Your task to perform on an android device: Open Android settings Image 0: 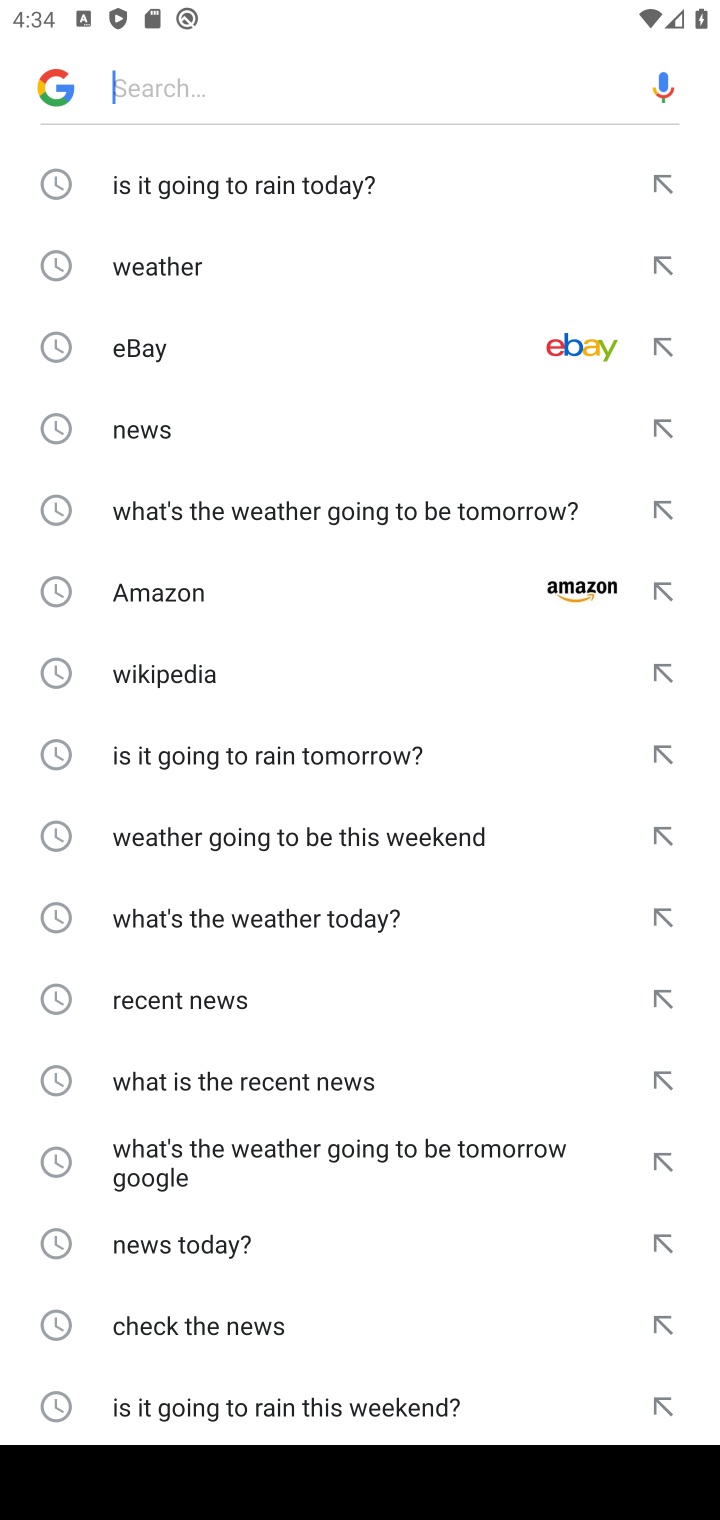
Step 0: press home button
Your task to perform on an android device: Open Android settings Image 1: 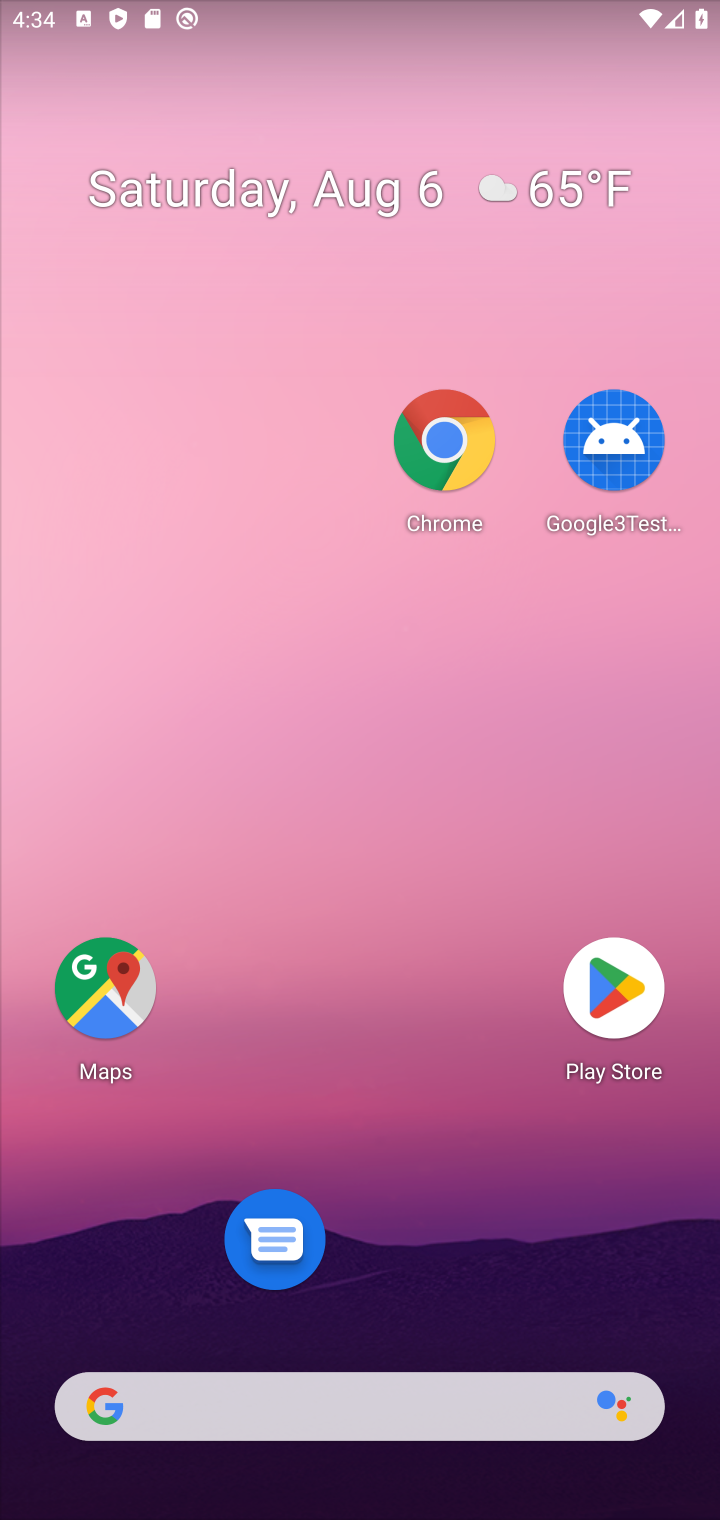
Step 1: drag from (415, 1176) to (394, 30)
Your task to perform on an android device: Open Android settings Image 2: 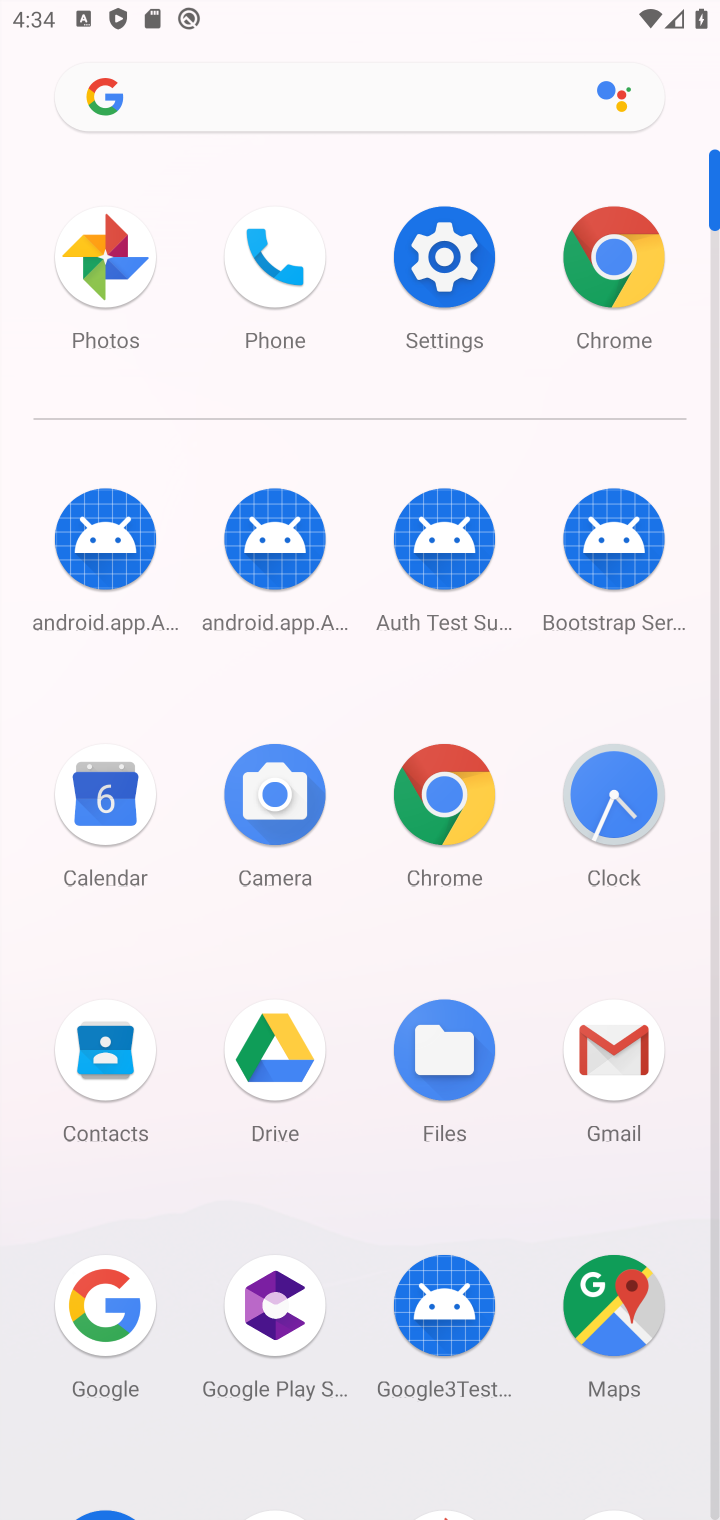
Step 2: click (446, 279)
Your task to perform on an android device: Open Android settings Image 3: 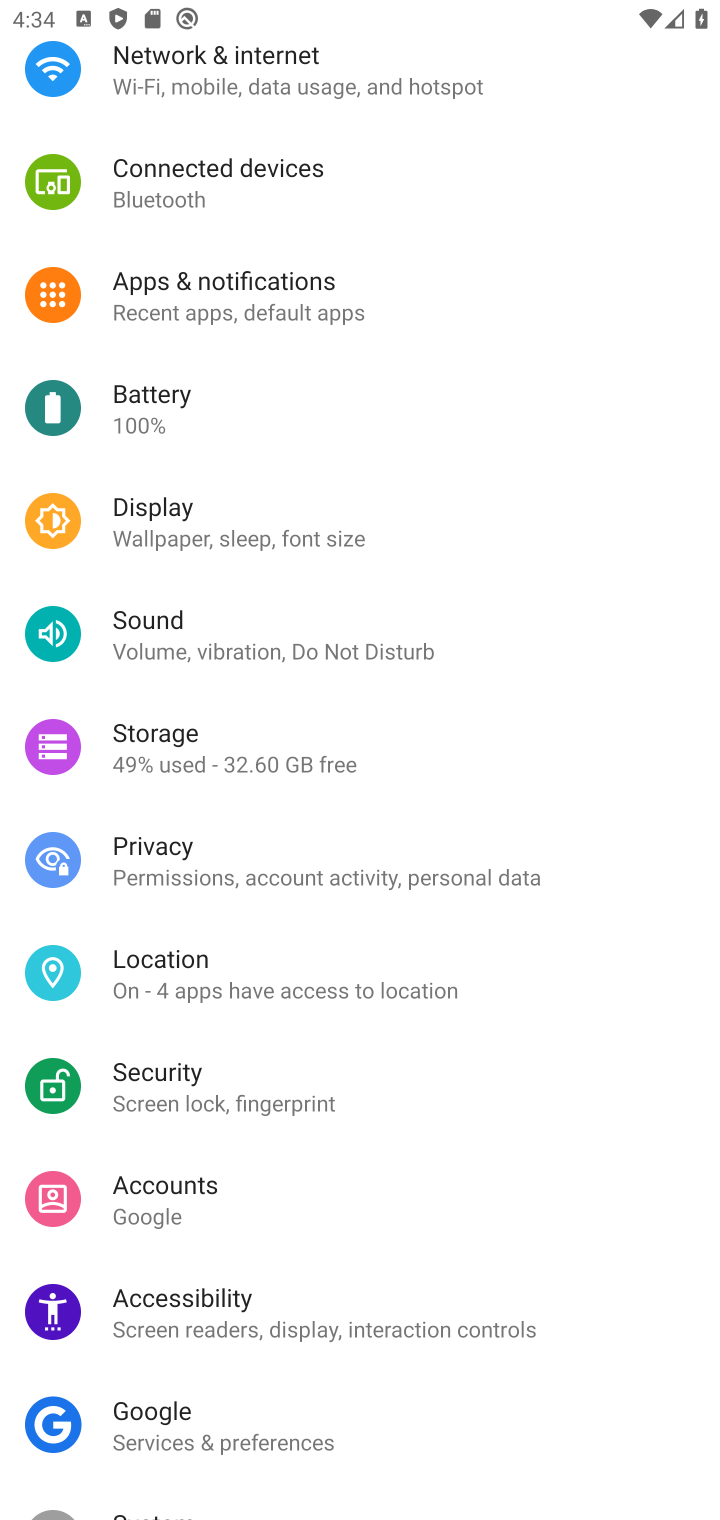
Step 3: drag from (659, 1423) to (657, 355)
Your task to perform on an android device: Open Android settings Image 4: 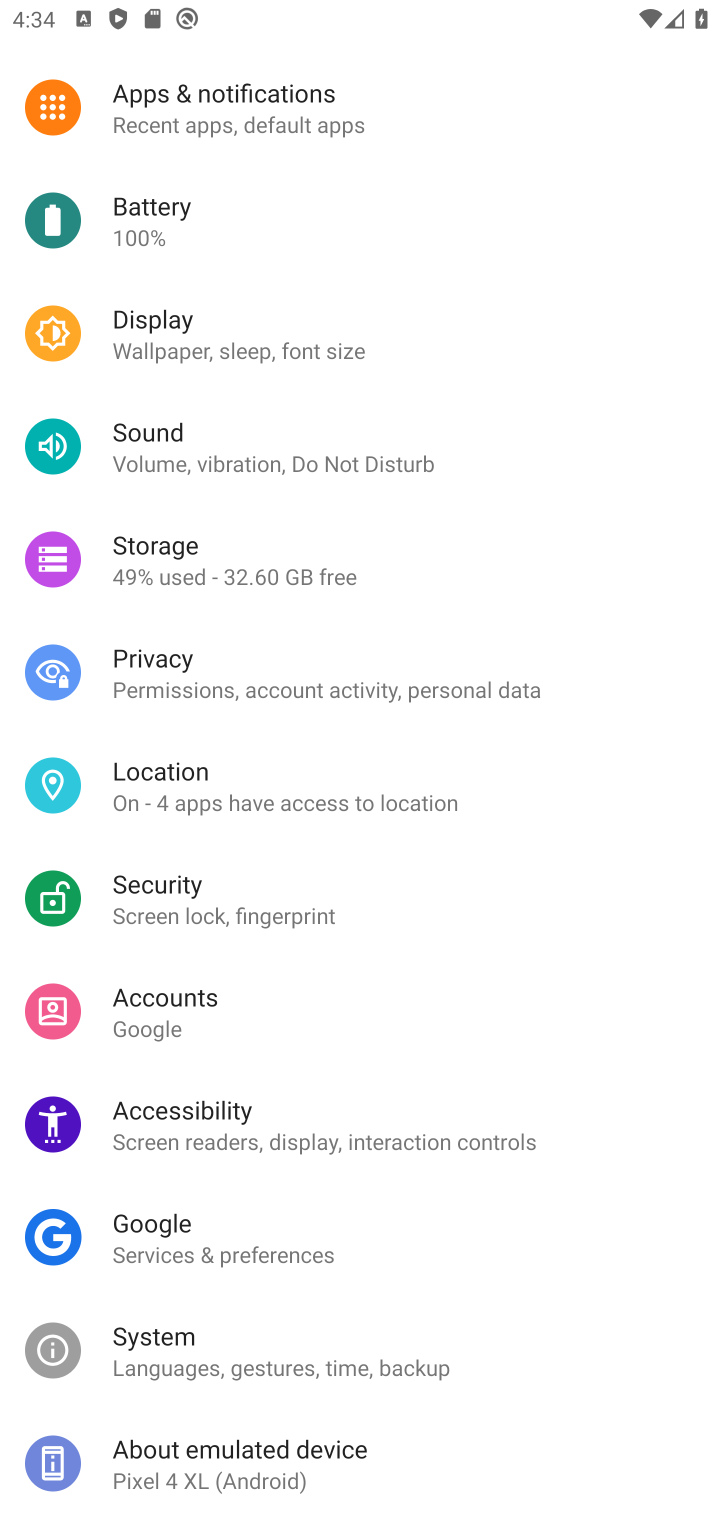
Step 4: click (340, 1473)
Your task to perform on an android device: Open Android settings Image 5: 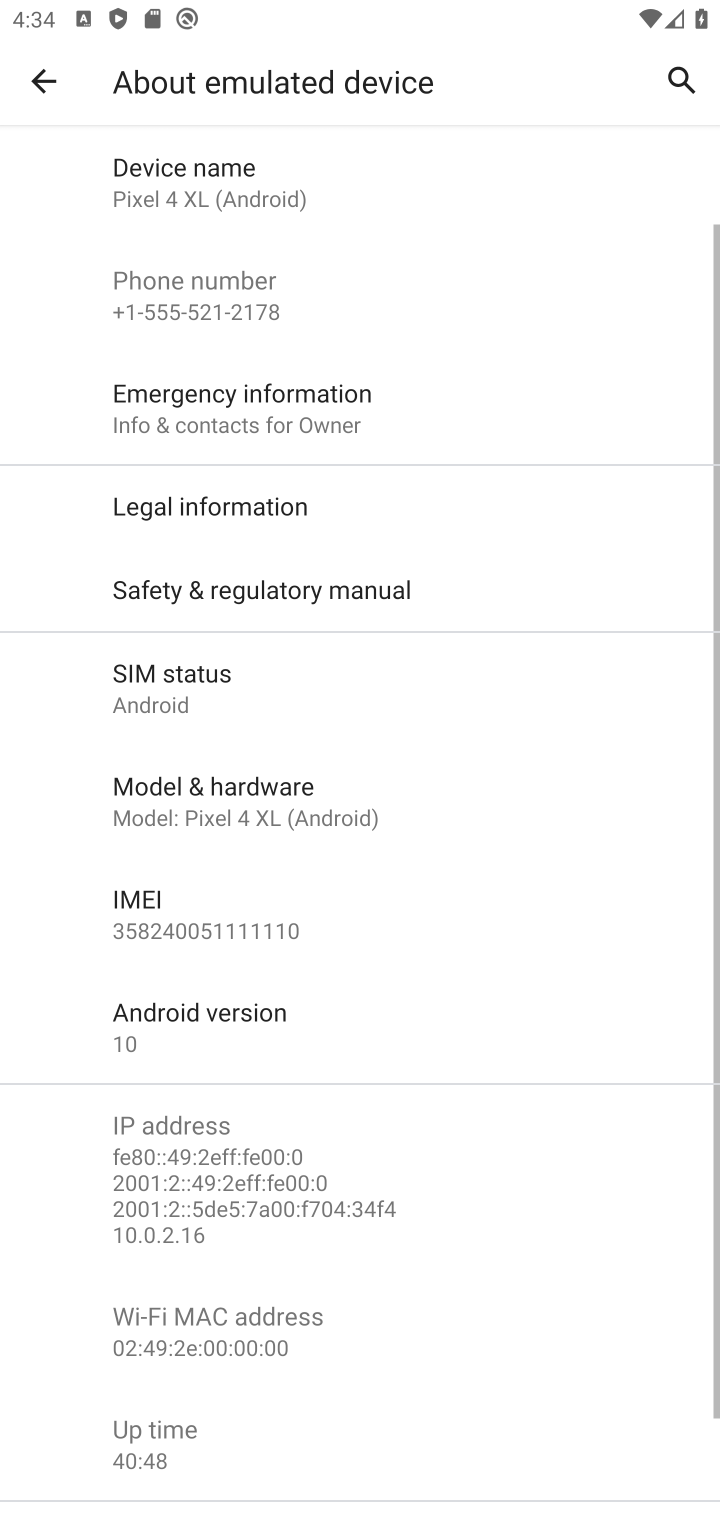
Step 5: task complete